Your task to perform on an android device: Go to privacy settings Image 0: 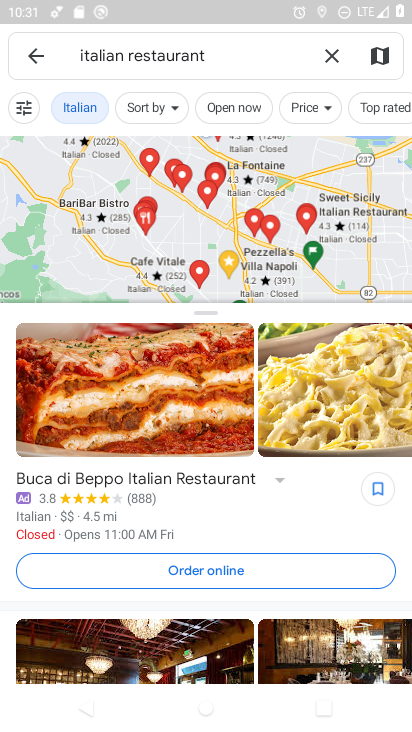
Step 0: press home button
Your task to perform on an android device: Go to privacy settings Image 1: 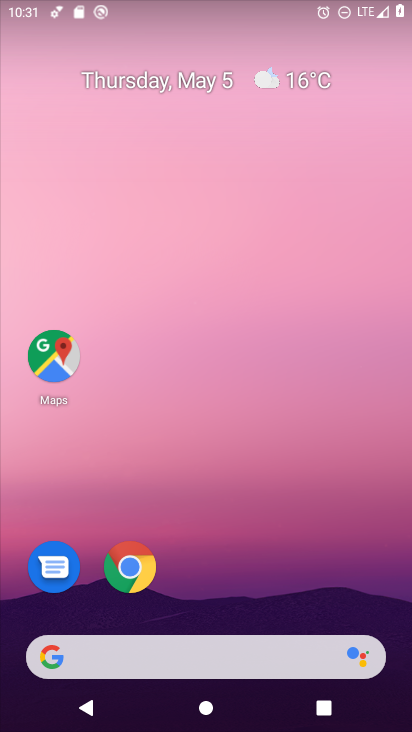
Step 1: drag from (293, 507) to (344, 35)
Your task to perform on an android device: Go to privacy settings Image 2: 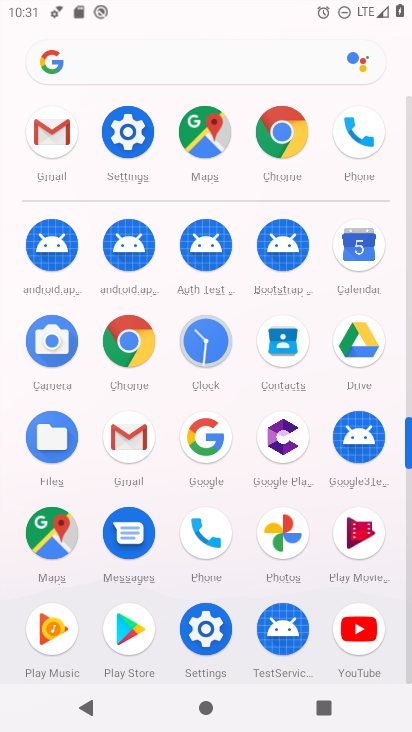
Step 2: click (136, 139)
Your task to perform on an android device: Go to privacy settings Image 3: 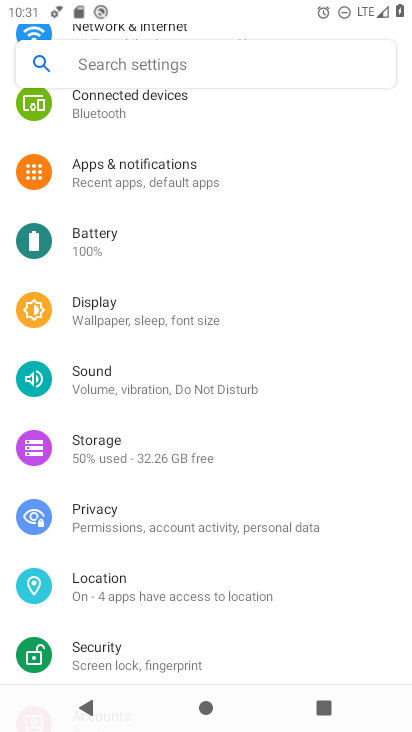
Step 3: click (173, 507)
Your task to perform on an android device: Go to privacy settings Image 4: 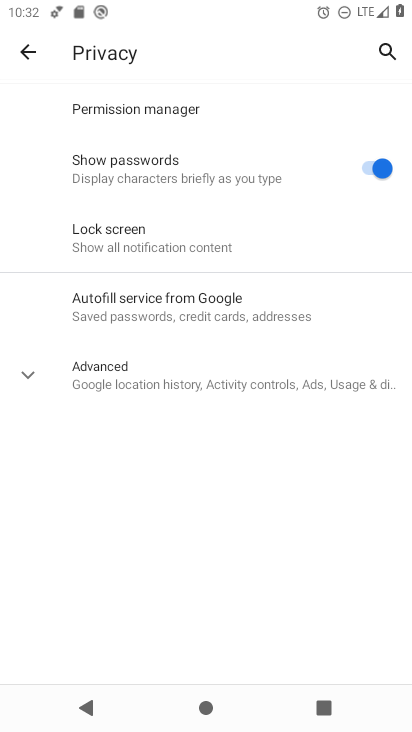
Step 4: task complete